Your task to perform on an android device: Search for sushi restaurants on Maps Image 0: 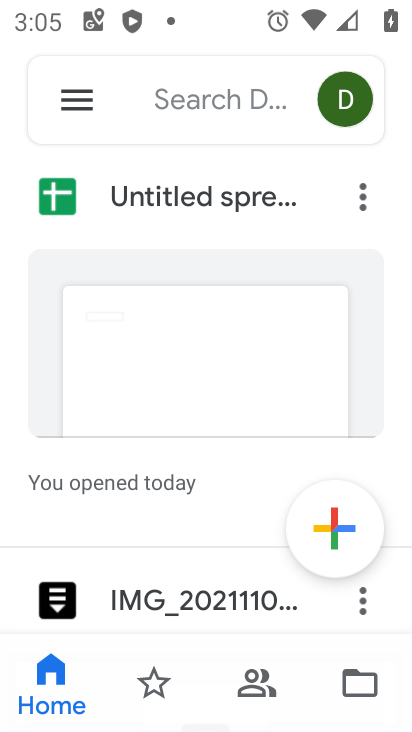
Step 0: press home button
Your task to perform on an android device: Search for sushi restaurants on Maps Image 1: 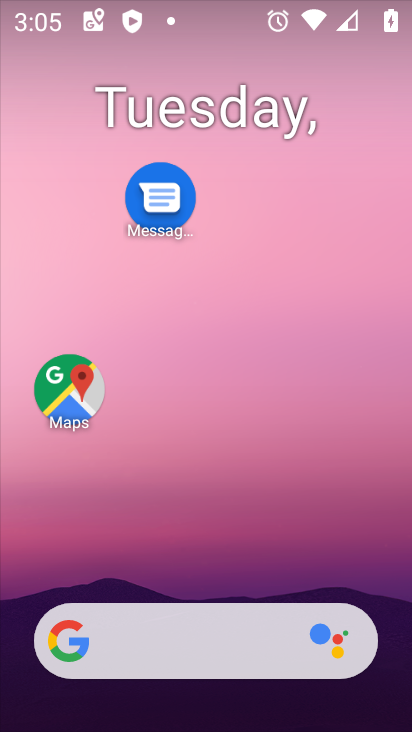
Step 1: click (68, 390)
Your task to perform on an android device: Search for sushi restaurants on Maps Image 2: 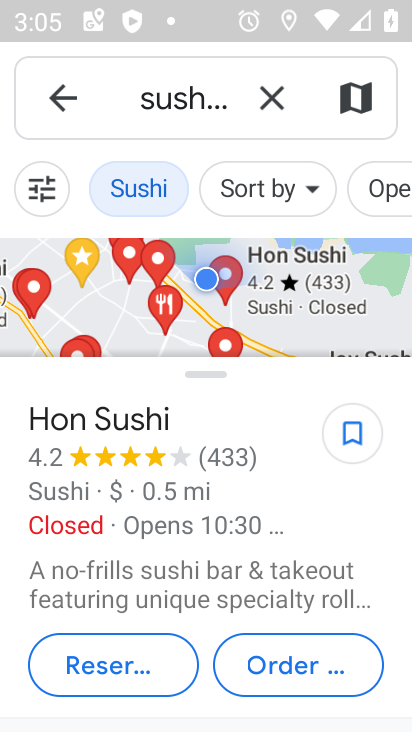
Step 2: task complete